Your task to perform on an android device: Open location settings Image 0: 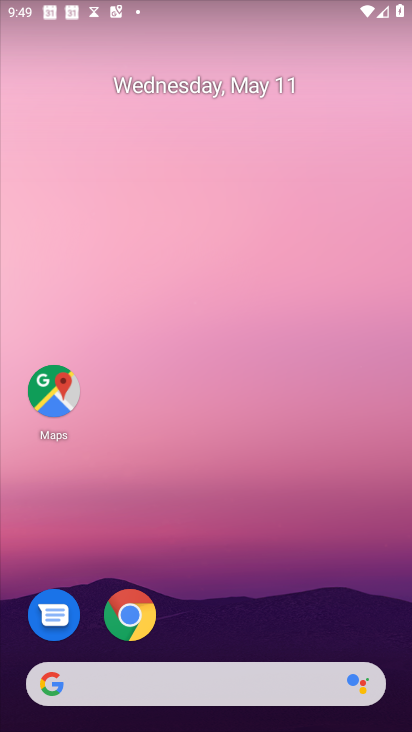
Step 0: drag from (267, 628) to (287, 50)
Your task to perform on an android device: Open location settings Image 1: 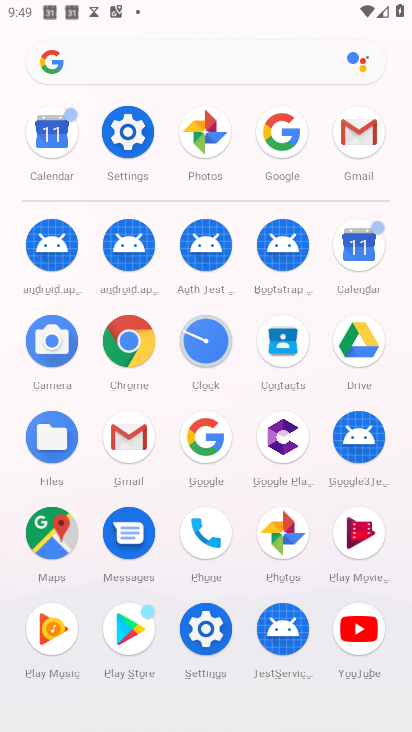
Step 1: click (195, 654)
Your task to perform on an android device: Open location settings Image 2: 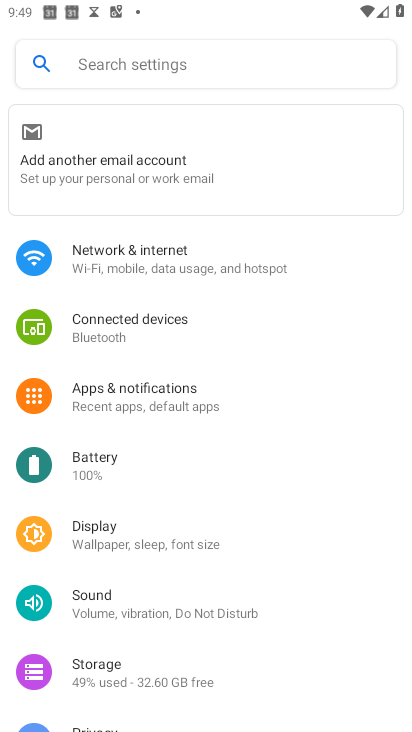
Step 2: drag from (169, 504) to (175, 301)
Your task to perform on an android device: Open location settings Image 3: 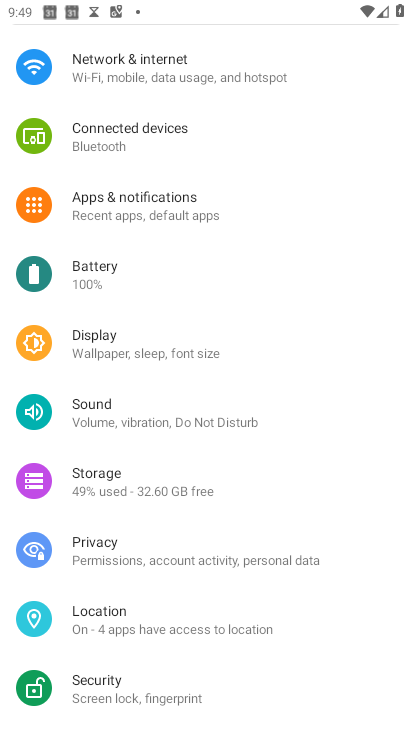
Step 3: click (121, 629)
Your task to perform on an android device: Open location settings Image 4: 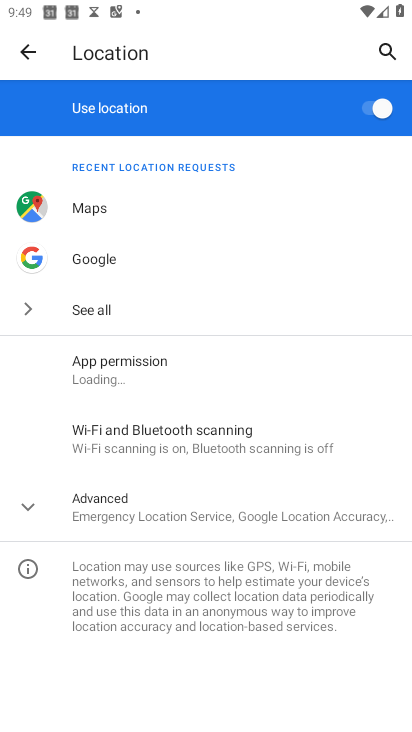
Step 4: task complete